Your task to perform on an android device: Open internet settings Image 0: 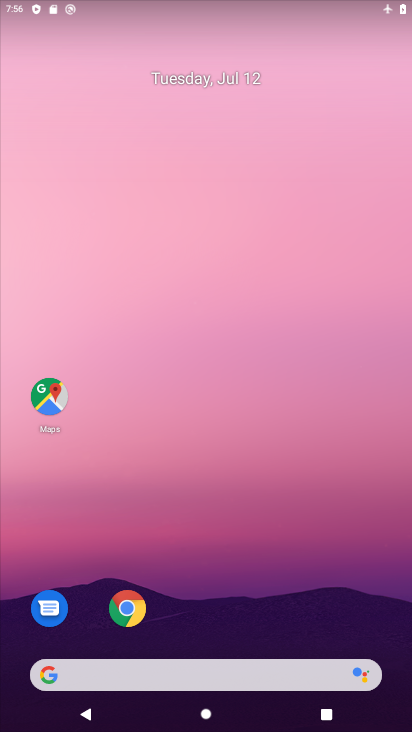
Step 0: drag from (200, 662) to (124, 121)
Your task to perform on an android device: Open internet settings Image 1: 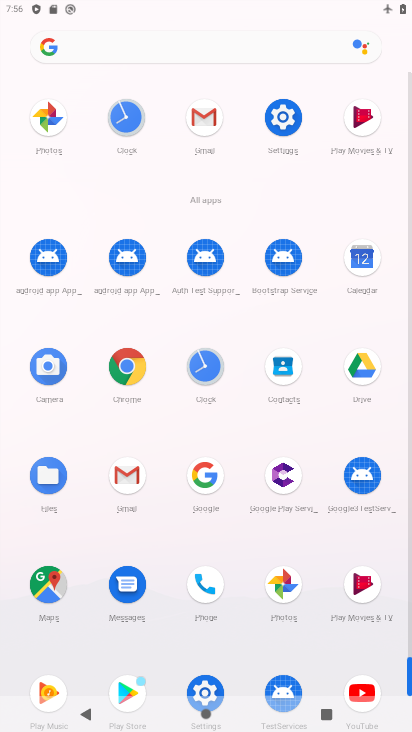
Step 1: click (218, 683)
Your task to perform on an android device: Open internet settings Image 2: 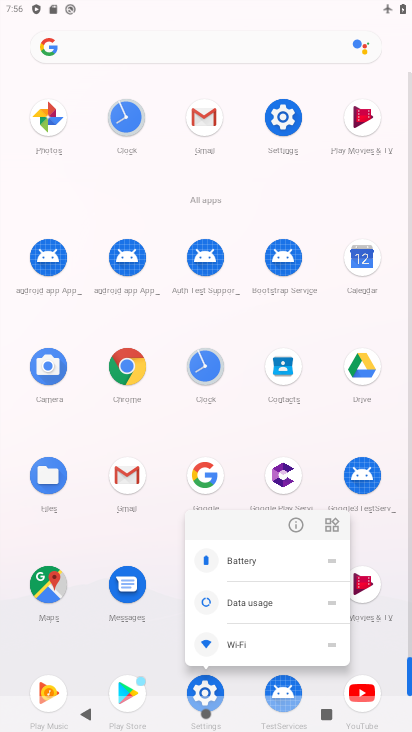
Step 2: click (202, 684)
Your task to perform on an android device: Open internet settings Image 3: 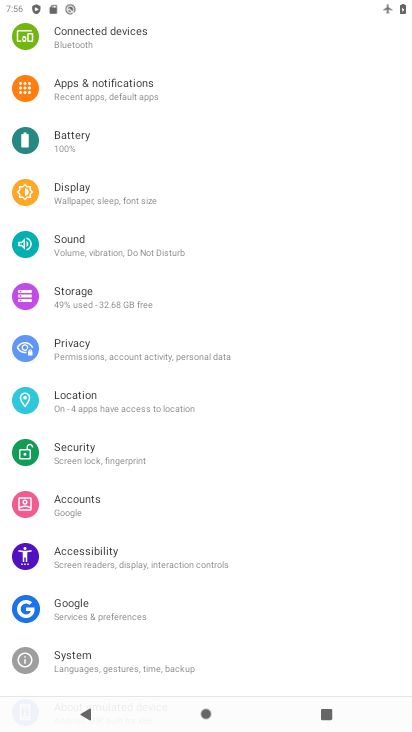
Step 3: drag from (88, 80) to (107, 483)
Your task to perform on an android device: Open internet settings Image 4: 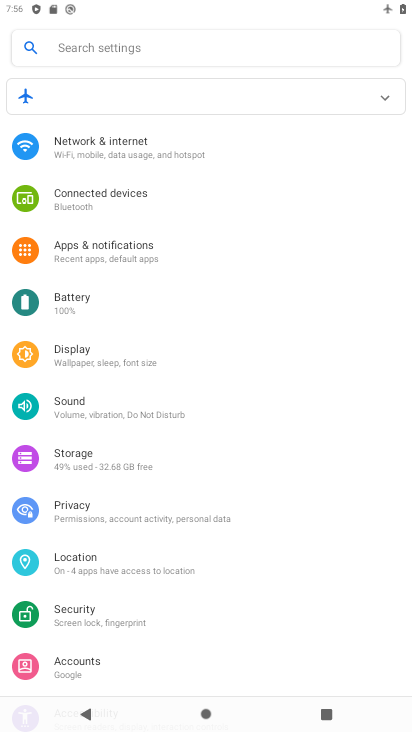
Step 4: click (110, 144)
Your task to perform on an android device: Open internet settings Image 5: 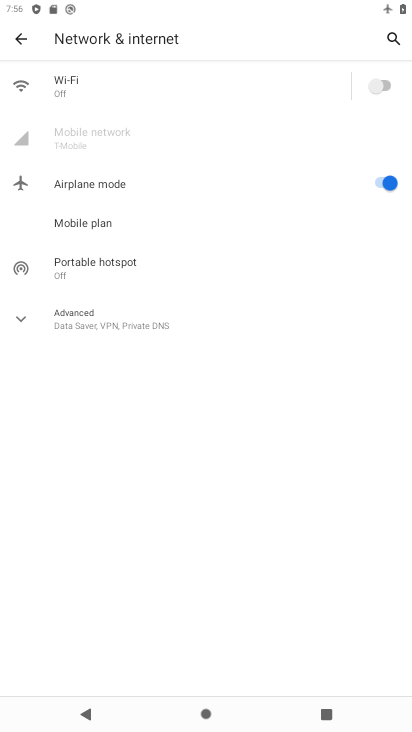
Step 5: task complete